Your task to perform on an android device: turn on data saver in the chrome app Image 0: 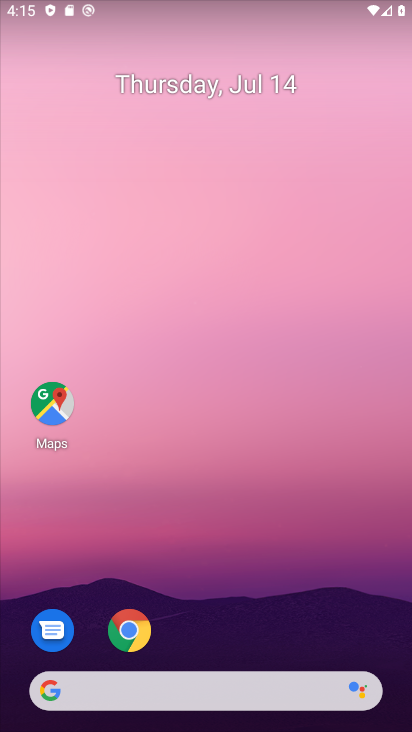
Step 0: click (139, 640)
Your task to perform on an android device: turn on data saver in the chrome app Image 1: 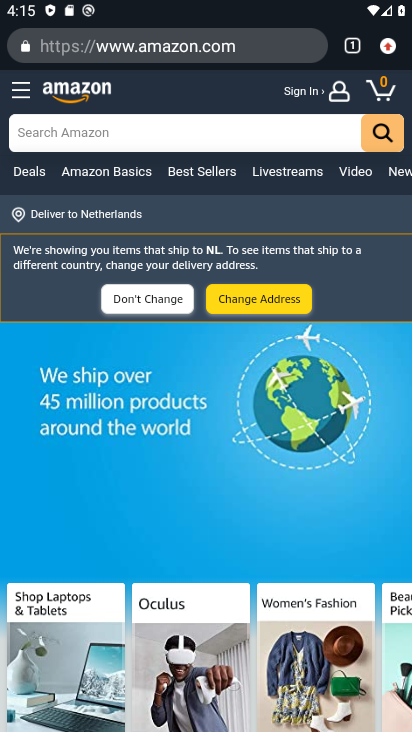
Step 1: click (378, 41)
Your task to perform on an android device: turn on data saver in the chrome app Image 2: 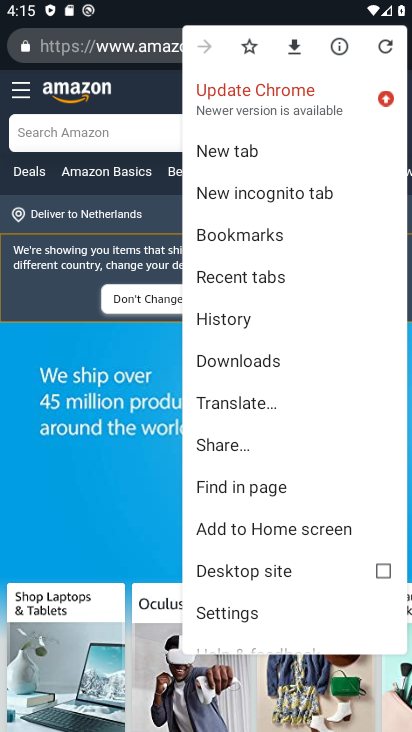
Step 2: click (268, 622)
Your task to perform on an android device: turn on data saver in the chrome app Image 3: 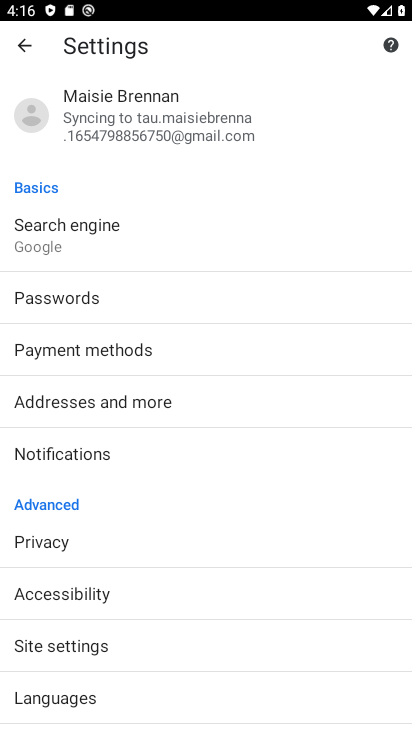
Step 3: drag from (68, 505) to (97, 136)
Your task to perform on an android device: turn on data saver in the chrome app Image 4: 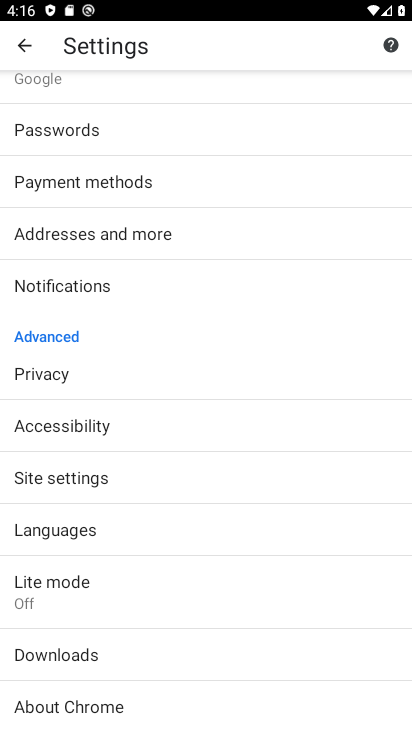
Step 4: click (158, 584)
Your task to perform on an android device: turn on data saver in the chrome app Image 5: 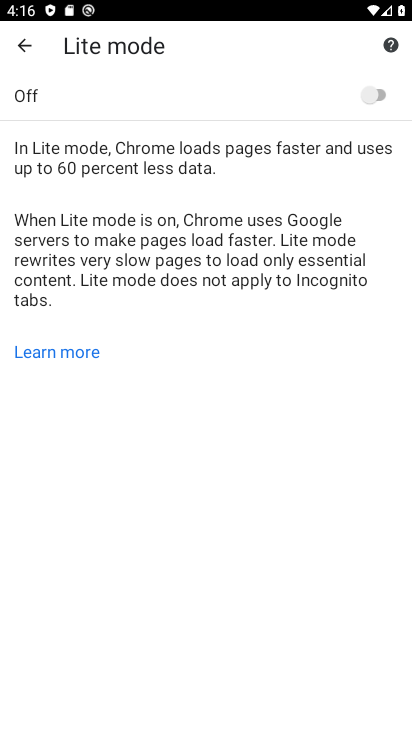
Step 5: click (383, 98)
Your task to perform on an android device: turn on data saver in the chrome app Image 6: 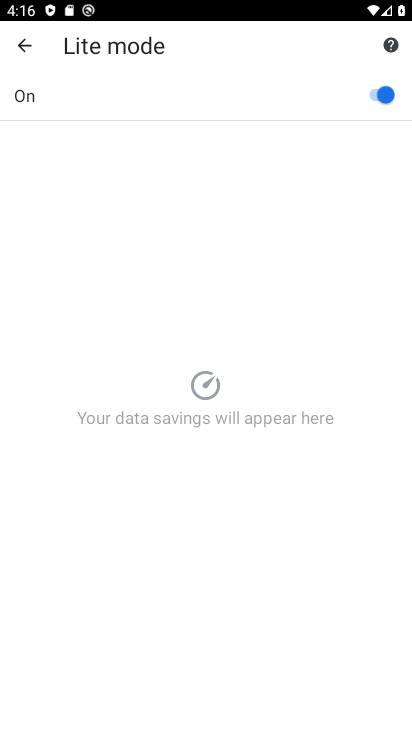
Step 6: task complete